Your task to perform on an android device: change notification settings in the gmail app Image 0: 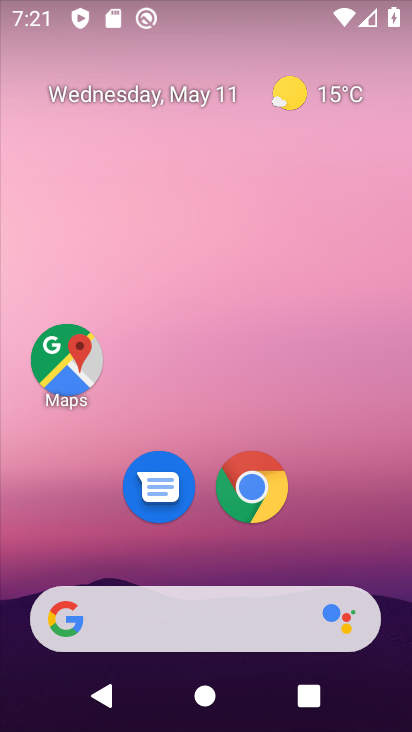
Step 0: drag from (294, 665) to (265, 318)
Your task to perform on an android device: change notification settings in the gmail app Image 1: 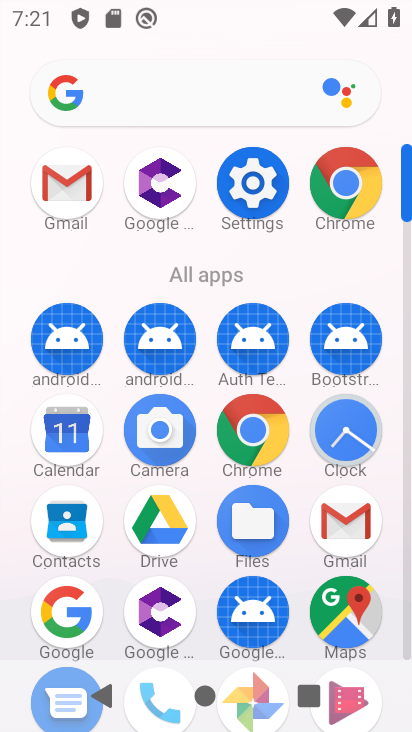
Step 1: click (325, 521)
Your task to perform on an android device: change notification settings in the gmail app Image 2: 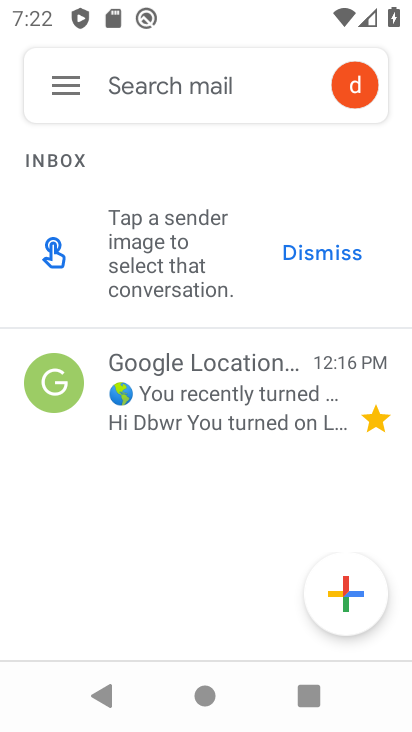
Step 2: click (58, 86)
Your task to perform on an android device: change notification settings in the gmail app Image 3: 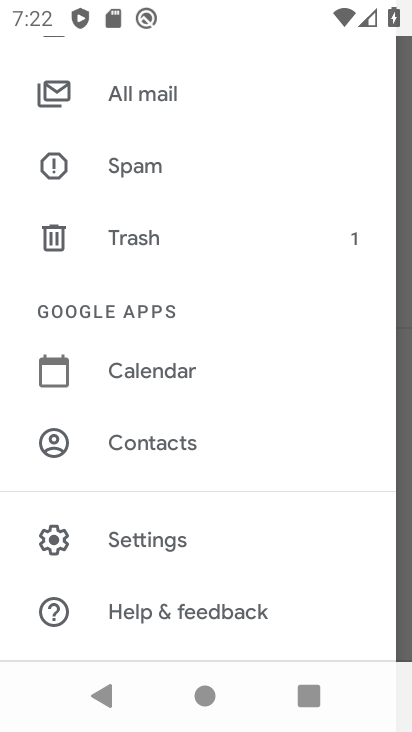
Step 3: click (165, 552)
Your task to perform on an android device: change notification settings in the gmail app Image 4: 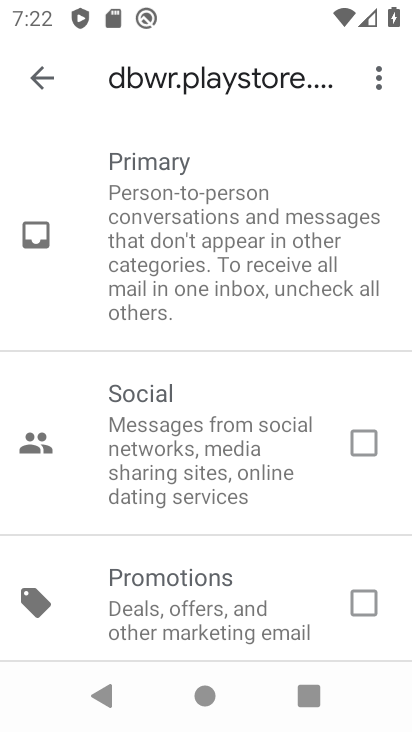
Step 4: click (34, 92)
Your task to perform on an android device: change notification settings in the gmail app Image 5: 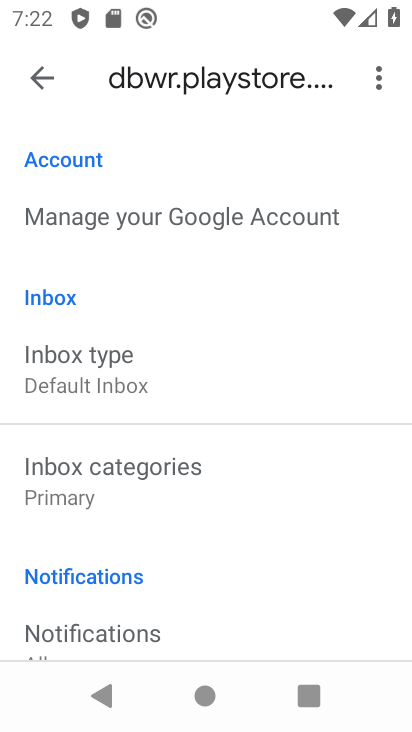
Step 5: drag from (138, 550) to (155, 423)
Your task to perform on an android device: change notification settings in the gmail app Image 6: 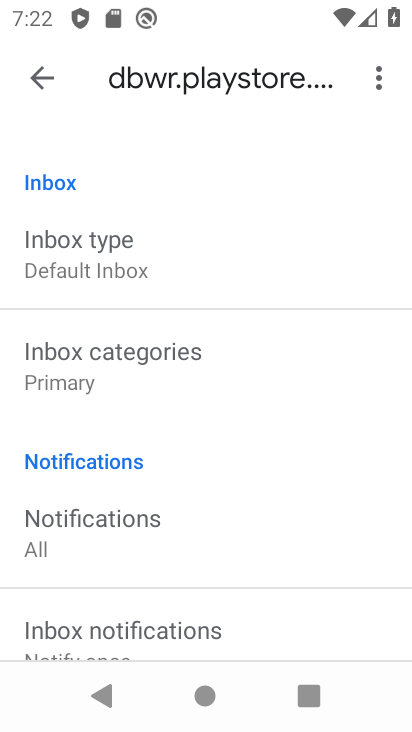
Step 6: click (83, 528)
Your task to perform on an android device: change notification settings in the gmail app Image 7: 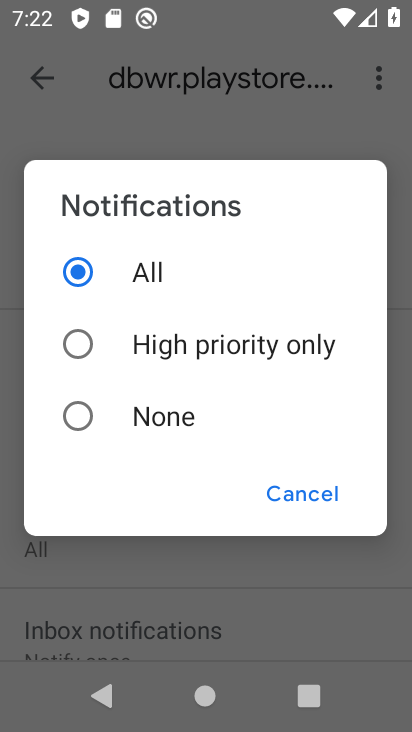
Step 7: click (202, 348)
Your task to perform on an android device: change notification settings in the gmail app Image 8: 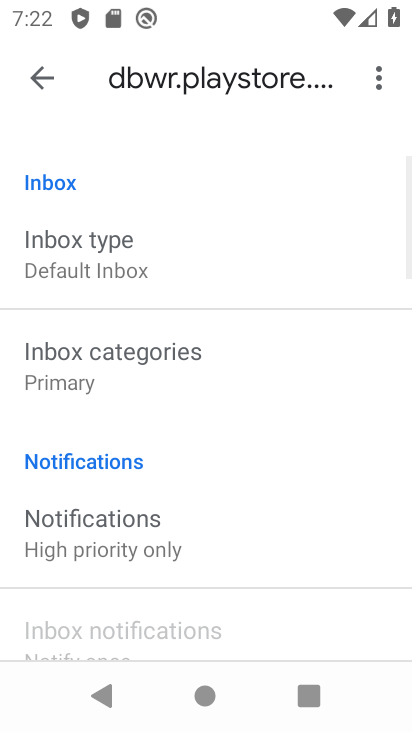
Step 8: task complete